Your task to perform on an android device: change alarm snooze length Image 0: 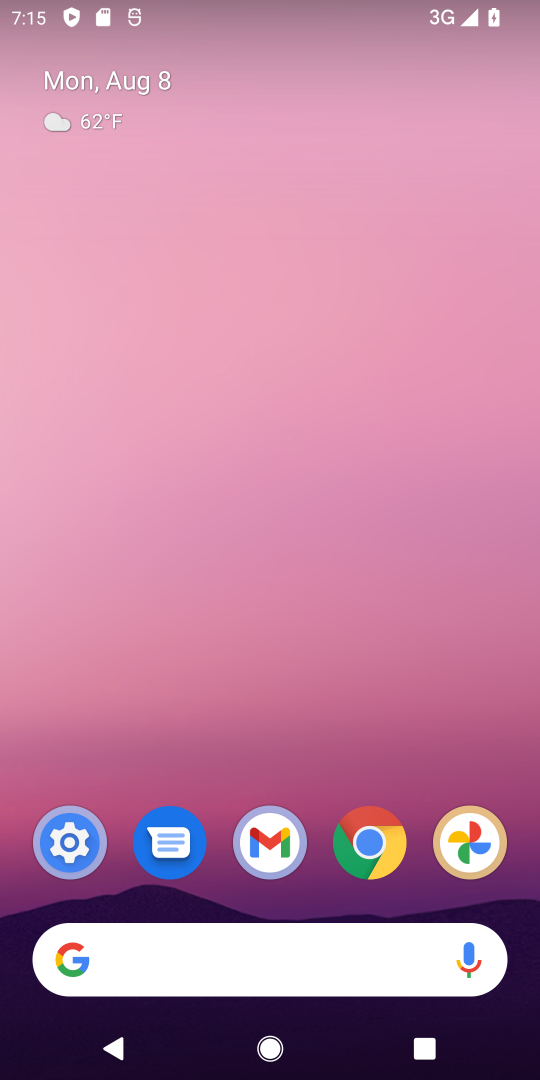
Step 0: drag from (283, 907) to (287, 148)
Your task to perform on an android device: change alarm snooze length Image 1: 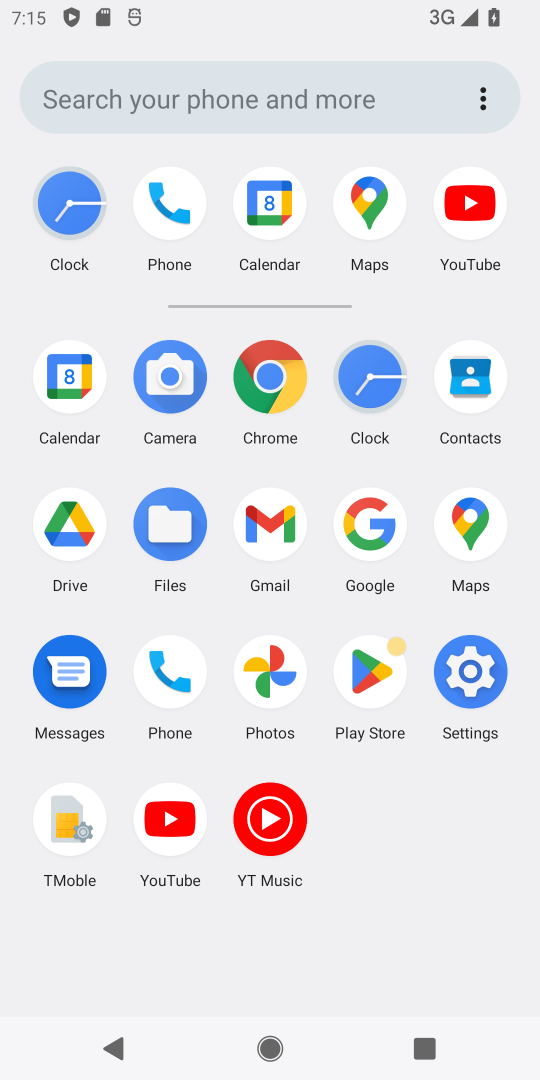
Step 1: click (360, 384)
Your task to perform on an android device: change alarm snooze length Image 2: 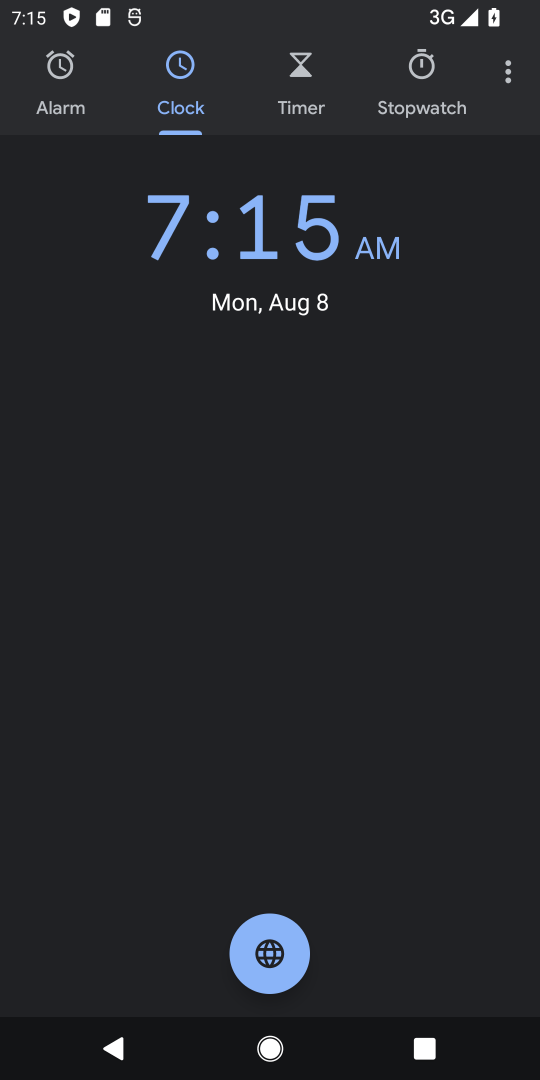
Step 2: drag from (500, 83) to (392, 127)
Your task to perform on an android device: change alarm snooze length Image 3: 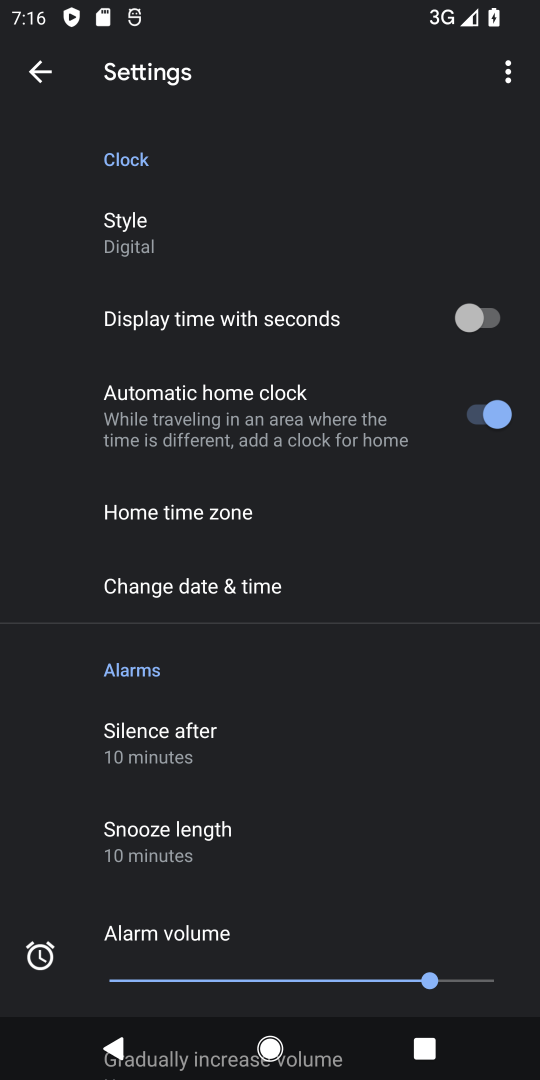
Step 3: click (215, 821)
Your task to perform on an android device: change alarm snooze length Image 4: 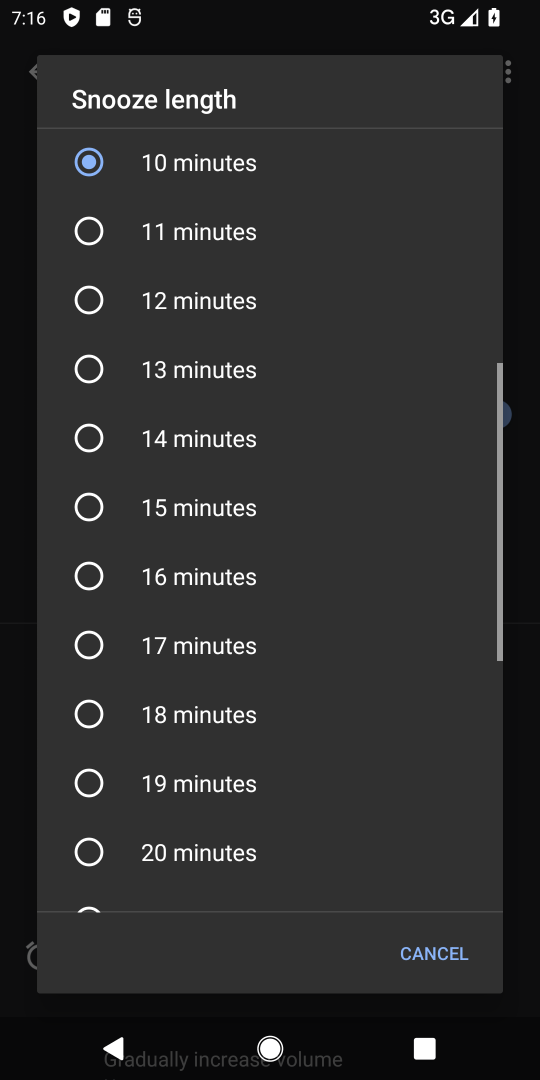
Step 4: click (157, 217)
Your task to perform on an android device: change alarm snooze length Image 5: 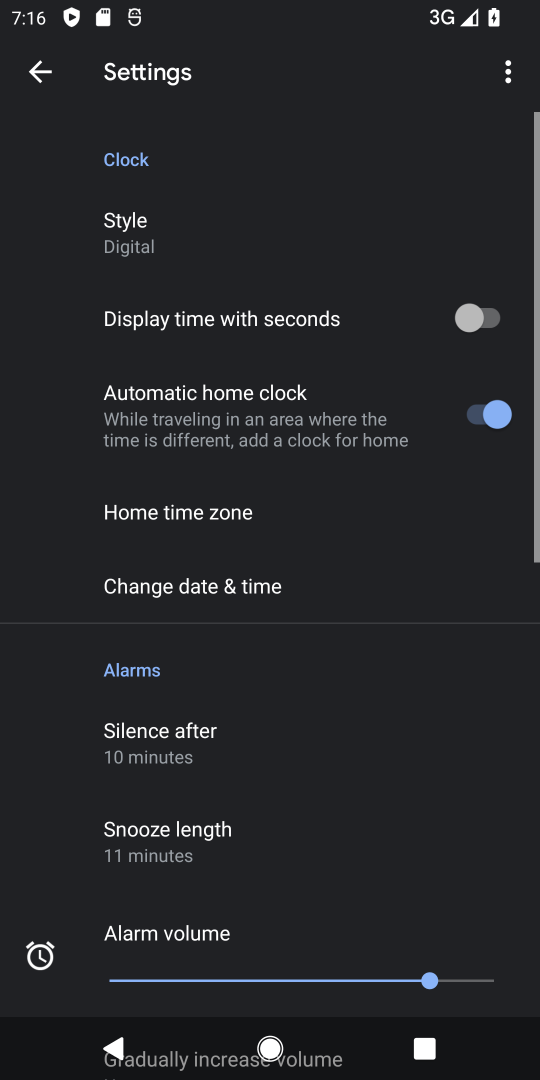
Step 5: task complete